Your task to perform on an android device: Set the phone to "Do not disturb". Image 0: 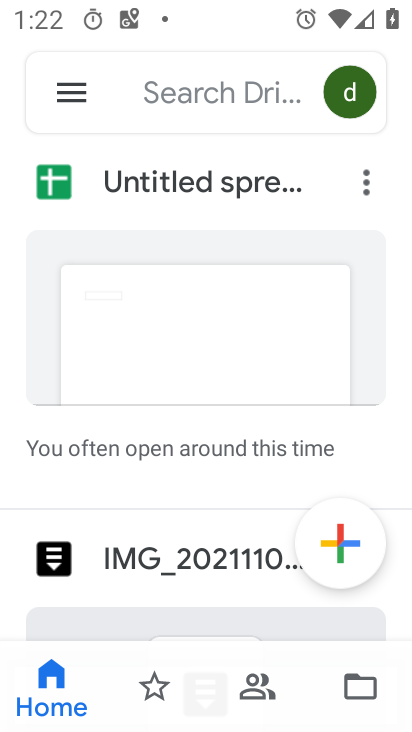
Step 0: press home button
Your task to perform on an android device: Set the phone to "Do not disturb". Image 1: 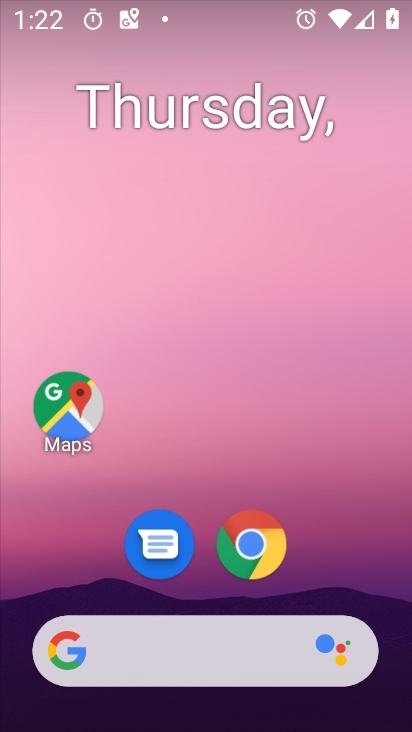
Step 1: drag from (168, 46) to (149, 472)
Your task to perform on an android device: Set the phone to "Do not disturb". Image 2: 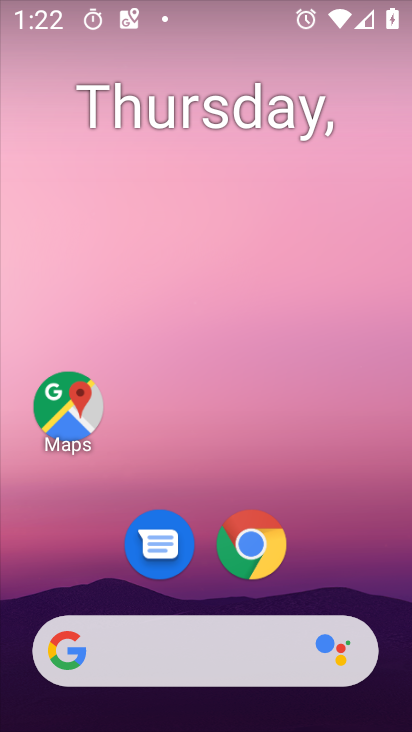
Step 2: drag from (154, 25) to (141, 437)
Your task to perform on an android device: Set the phone to "Do not disturb". Image 3: 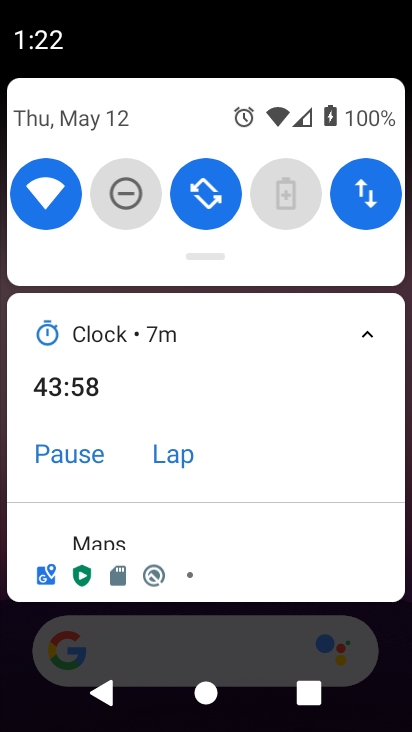
Step 3: click (145, 198)
Your task to perform on an android device: Set the phone to "Do not disturb". Image 4: 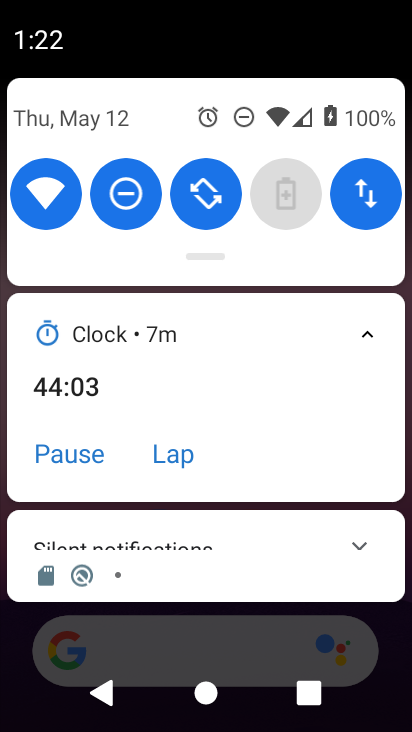
Step 4: task complete